Your task to perform on an android device: open app "VLC for Android" (install if not already installed) Image 0: 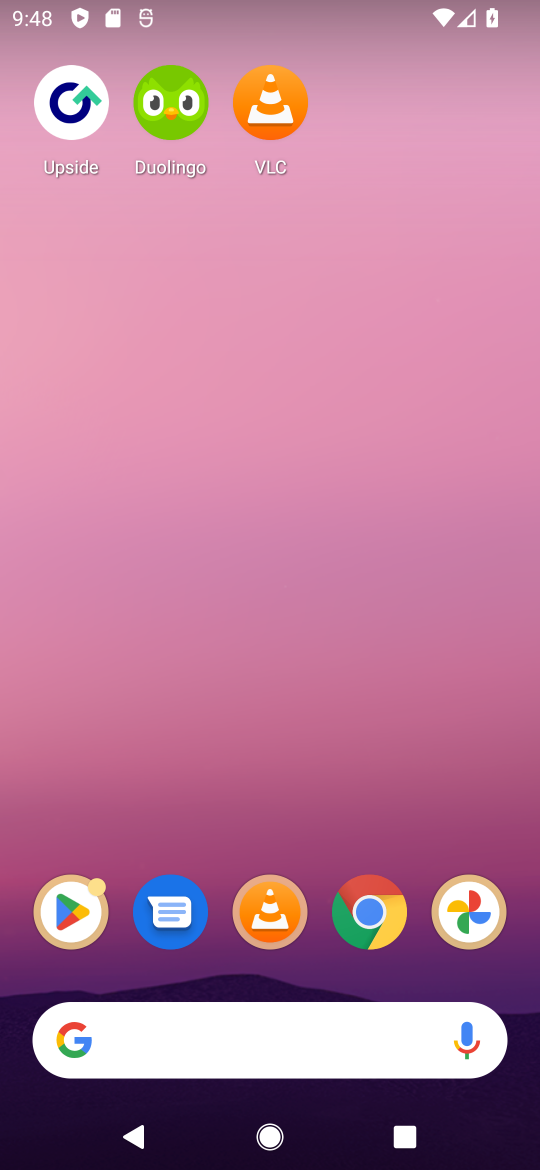
Step 0: click (92, 935)
Your task to perform on an android device: open app "VLC for Android" (install if not already installed) Image 1: 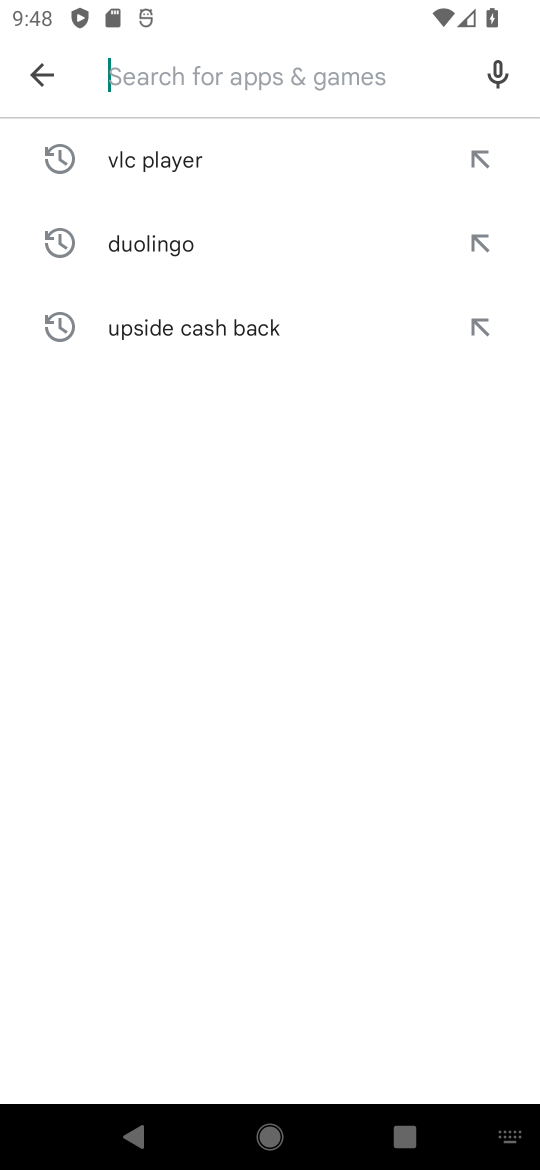
Step 1: click (211, 169)
Your task to perform on an android device: open app "VLC for Android" (install if not already installed) Image 2: 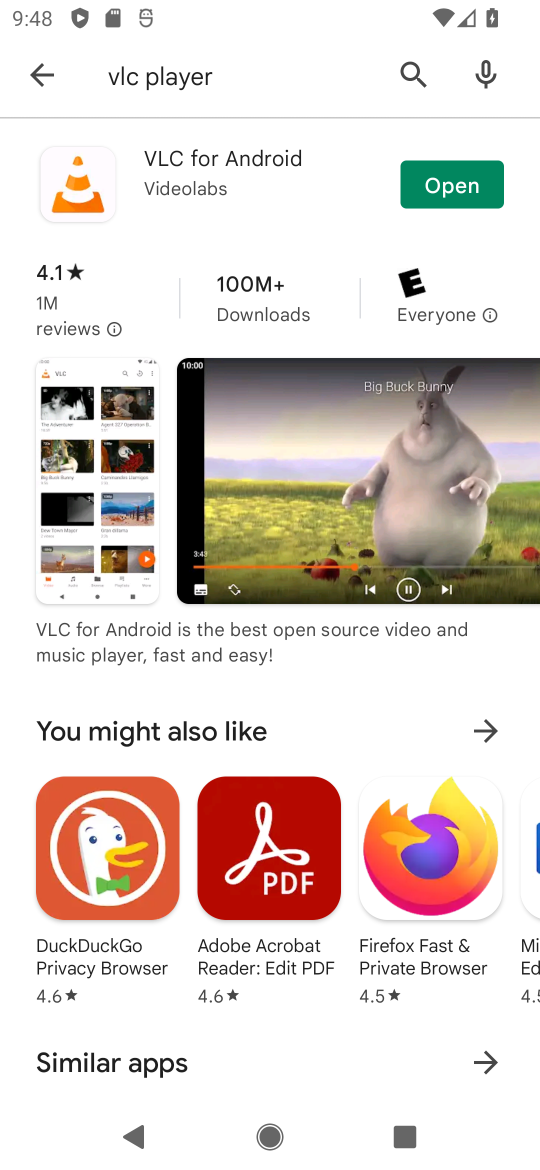
Step 2: click (416, 199)
Your task to perform on an android device: open app "VLC for Android" (install if not already installed) Image 3: 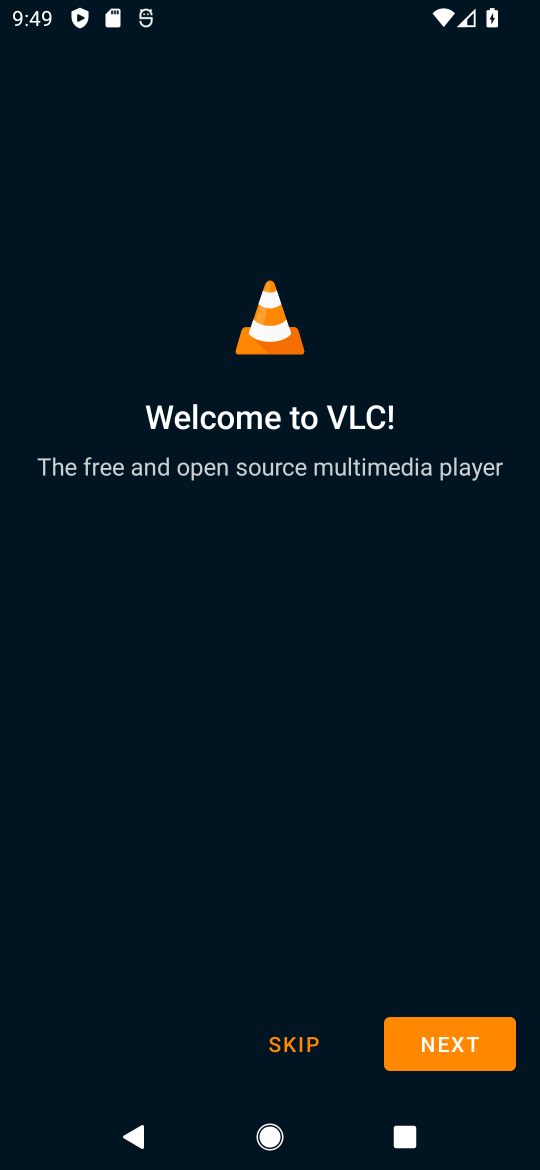
Step 3: task complete